Your task to perform on an android device: Open Youtube and go to the subscriptions tab Image 0: 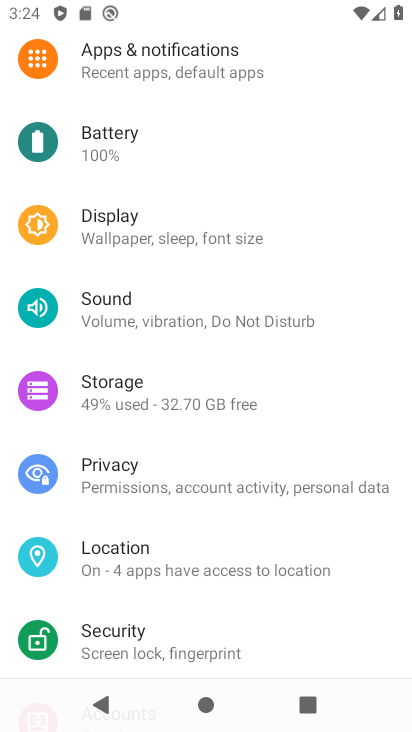
Step 0: press home button
Your task to perform on an android device: Open Youtube and go to the subscriptions tab Image 1: 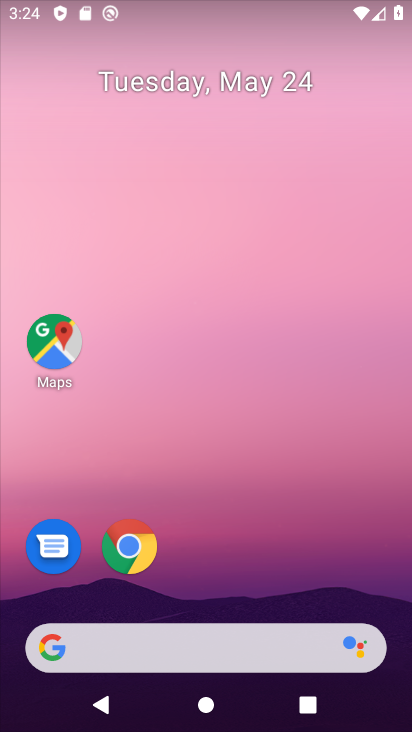
Step 1: drag from (240, 594) to (350, 83)
Your task to perform on an android device: Open Youtube and go to the subscriptions tab Image 2: 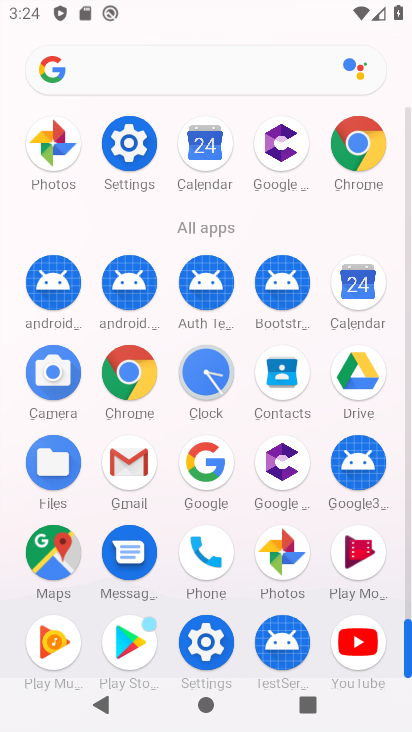
Step 2: click (349, 647)
Your task to perform on an android device: Open Youtube and go to the subscriptions tab Image 3: 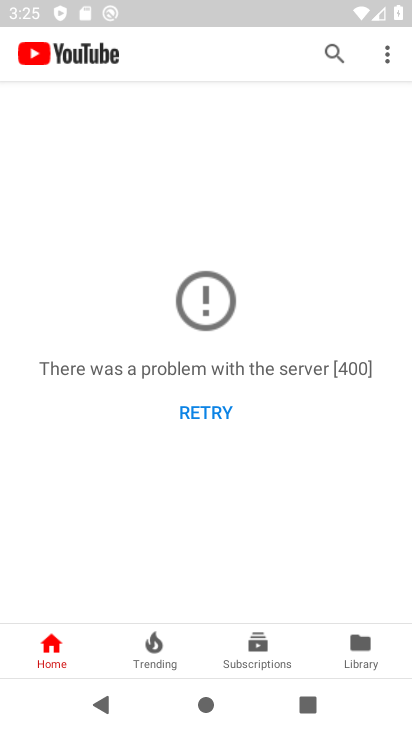
Step 3: click (258, 655)
Your task to perform on an android device: Open Youtube and go to the subscriptions tab Image 4: 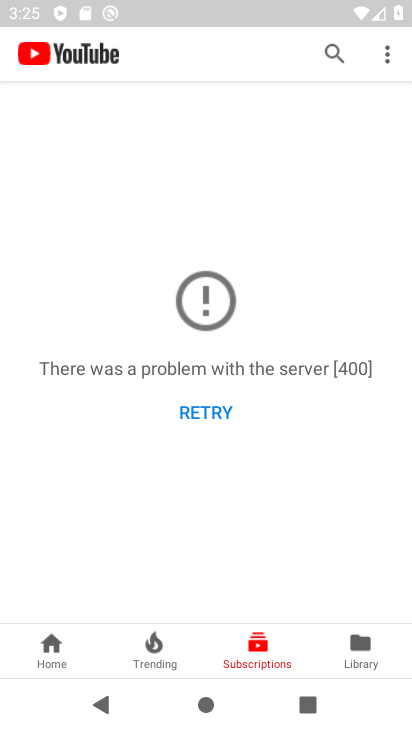
Step 4: task complete